Your task to perform on an android device: turn notification dots on Image 0: 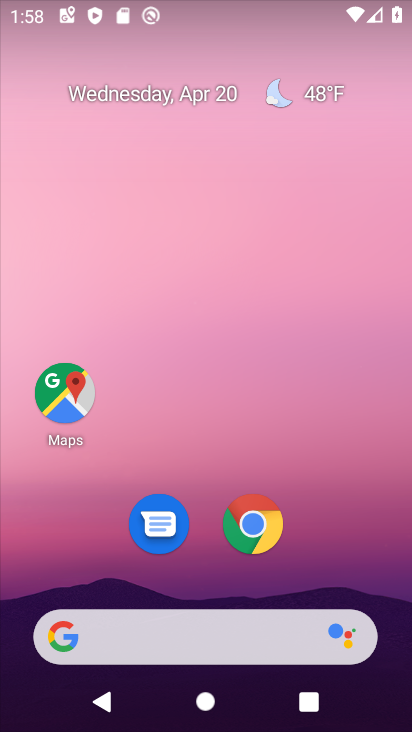
Step 0: drag from (346, 542) to (342, 33)
Your task to perform on an android device: turn notification dots on Image 1: 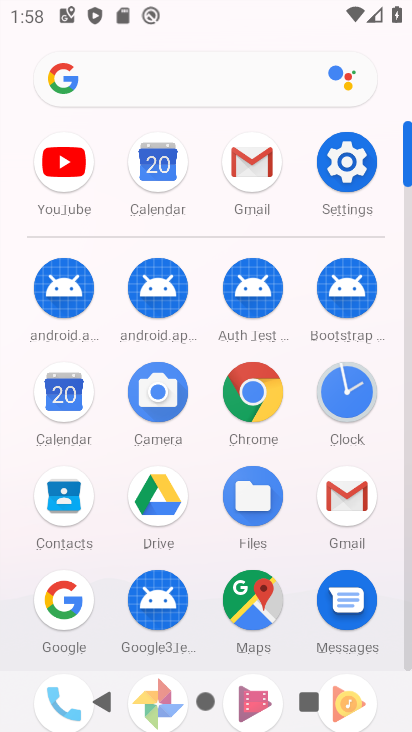
Step 1: click (347, 161)
Your task to perform on an android device: turn notification dots on Image 2: 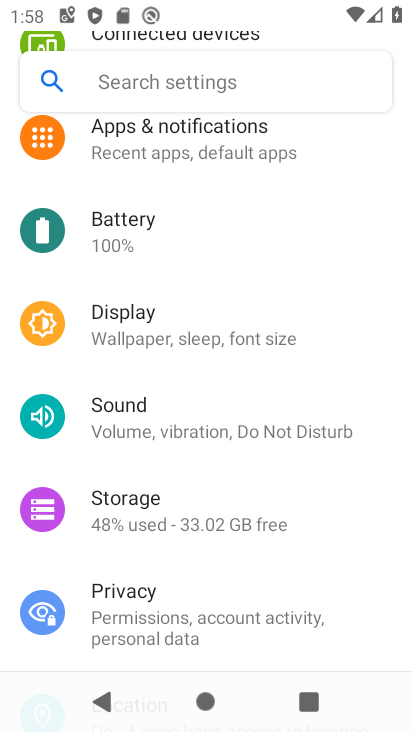
Step 2: click (236, 132)
Your task to perform on an android device: turn notification dots on Image 3: 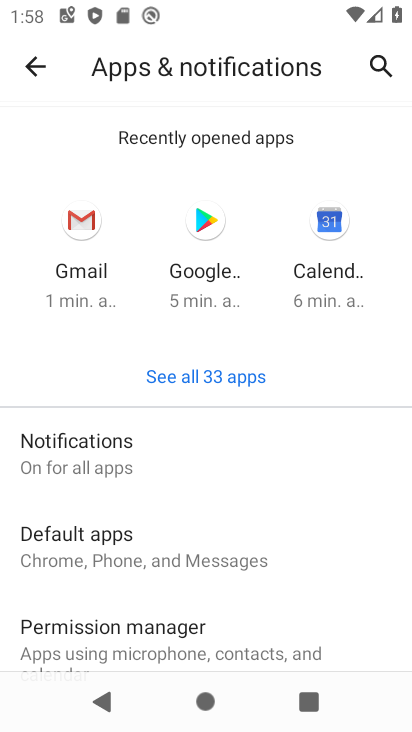
Step 3: drag from (227, 463) to (241, 169)
Your task to perform on an android device: turn notification dots on Image 4: 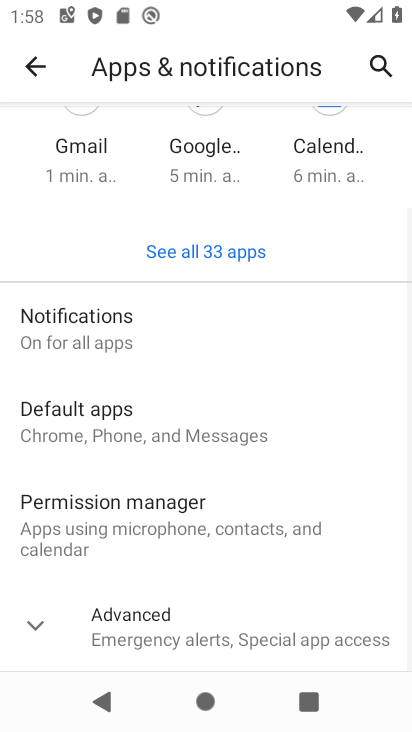
Step 4: drag from (246, 510) to (263, 268)
Your task to perform on an android device: turn notification dots on Image 5: 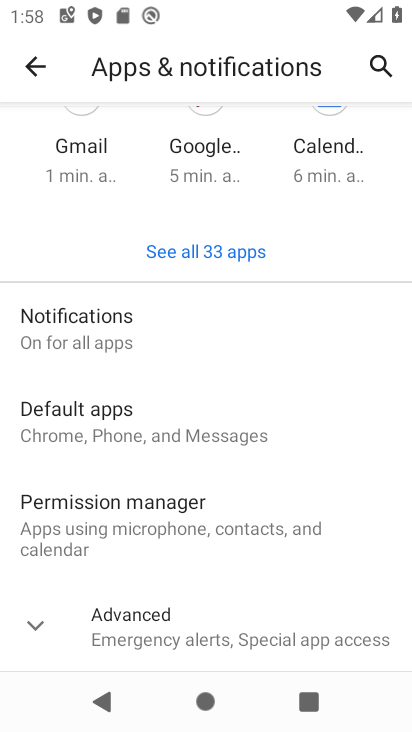
Step 5: click (118, 328)
Your task to perform on an android device: turn notification dots on Image 6: 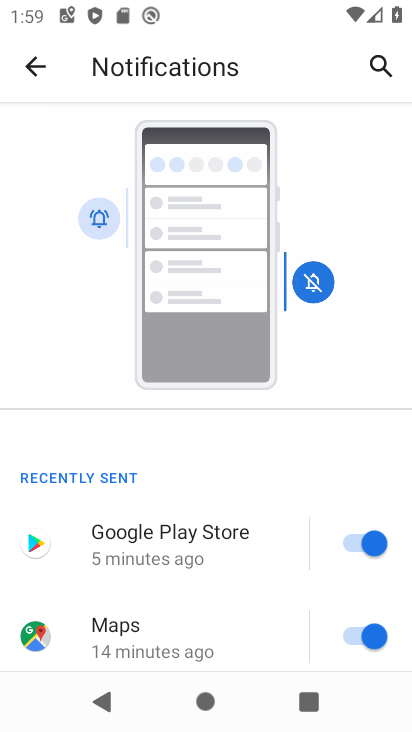
Step 6: drag from (228, 594) to (257, 149)
Your task to perform on an android device: turn notification dots on Image 7: 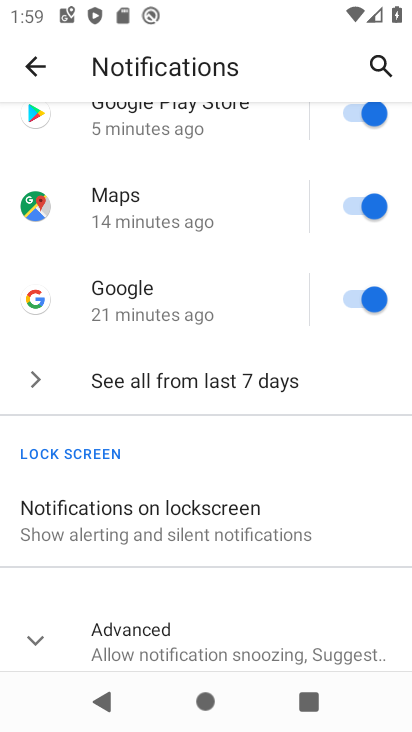
Step 7: click (28, 635)
Your task to perform on an android device: turn notification dots on Image 8: 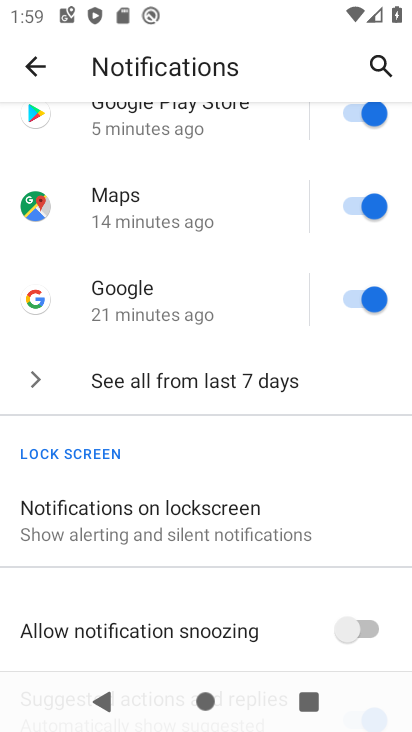
Step 8: task complete